Your task to perform on an android device: When is my next appointment? Image 0: 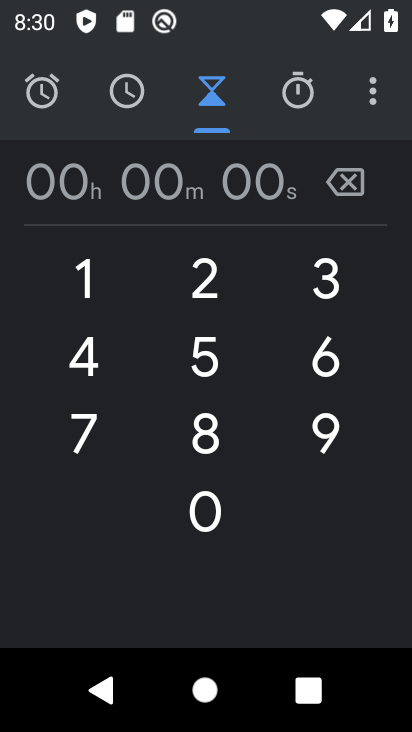
Step 0: press home button
Your task to perform on an android device: When is my next appointment? Image 1: 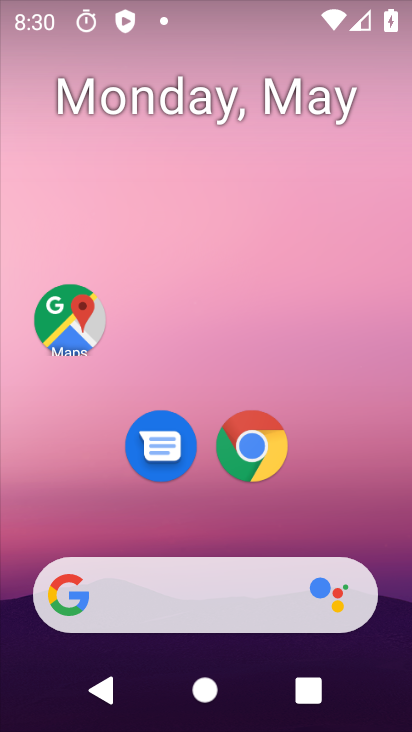
Step 1: drag from (370, 551) to (356, 7)
Your task to perform on an android device: When is my next appointment? Image 2: 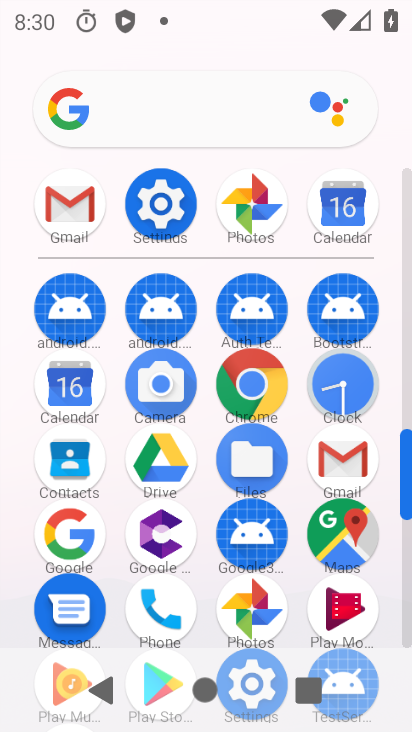
Step 2: click (347, 206)
Your task to perform on an android device: When is my next appointment? Image 3: 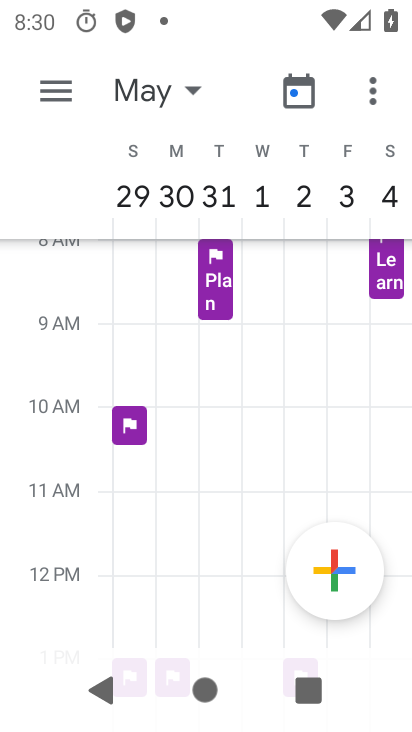
Step 3: click (67, 93)
Your task to perform on an android device: When is my next appointment? Image 4: 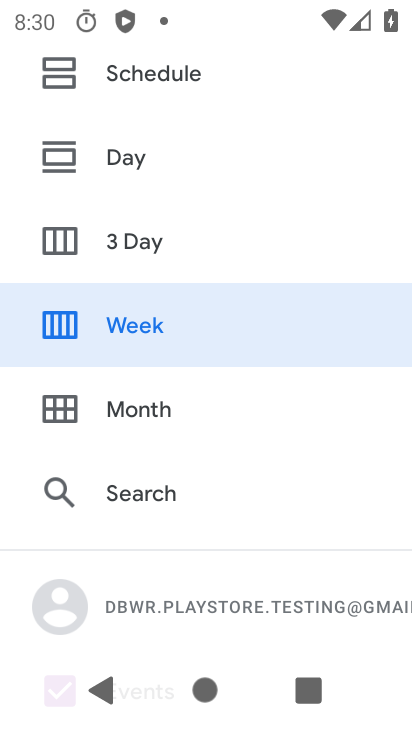
Step 4: click (165, 74)
Your task to perform on an android device: When is my next appointment? Image 5: 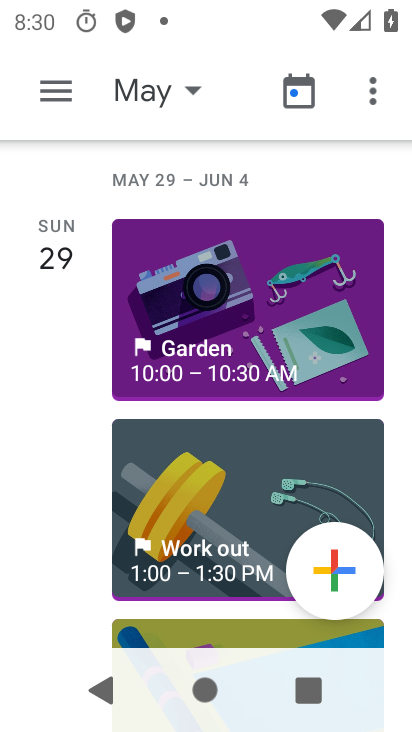
Step 5: drag from (235, 228) to (206, 708)
Your task to perform on an android device: When is my next appointment? Image 6: 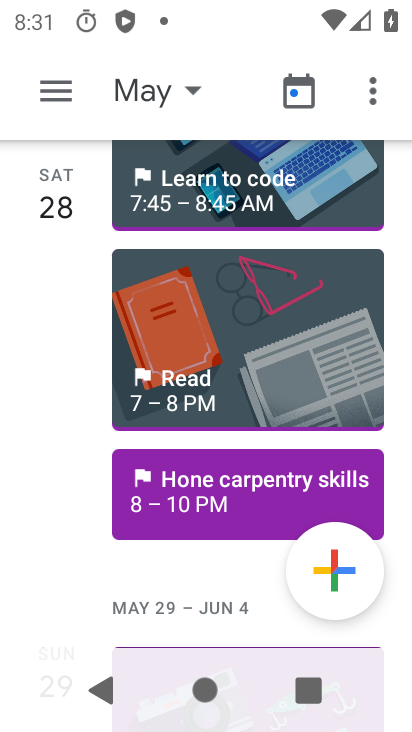
Step 6: click (294, 97)
Your task to perform on an android device: When is my next appointment? Image 7: 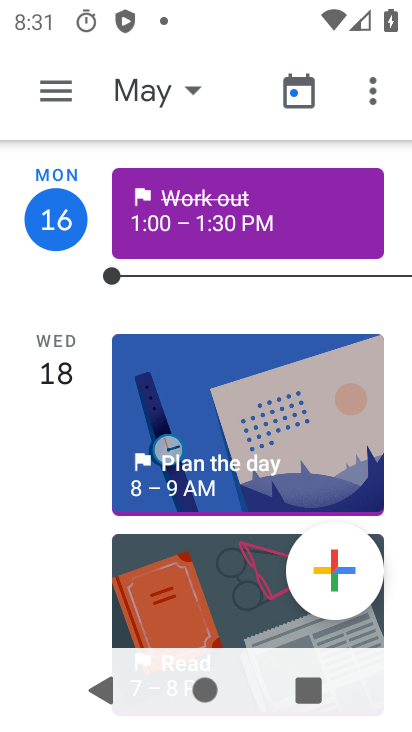
Step 7: drag from (212, 589) to (205, 240)
Your task to perform on an android device: When is my next appointment? Image 8: 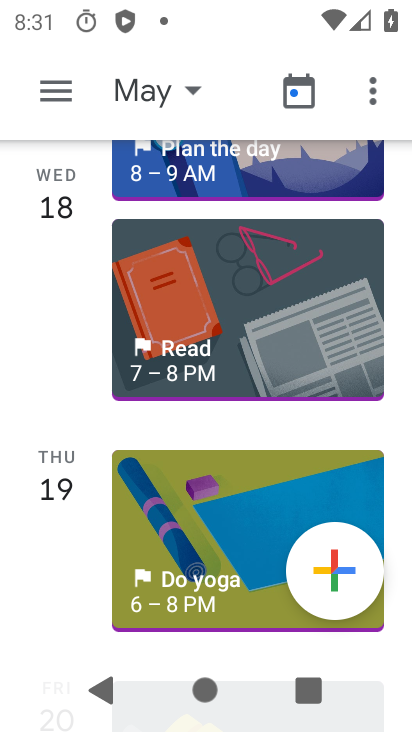
Step 8: drag from (212, 421) to (198, 122)
Your task to perform on an android device: When is my next appointment? Image 9: 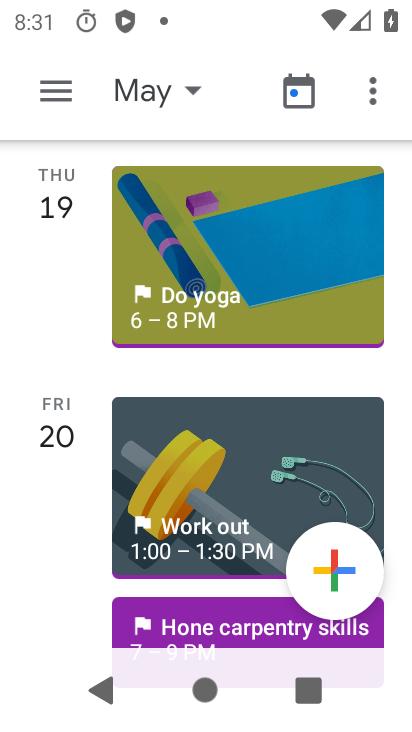
Step 9: drag from (187, 477) to (185, 97)
Your task to perform on an android device: When is my next appointment? Image 10: 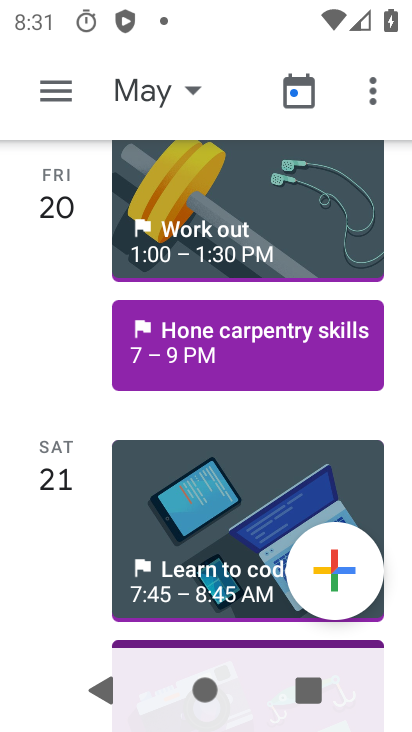
Step 10: click (211, 342)
Your task to perform on an android device: When is my next appointment? Image 11: 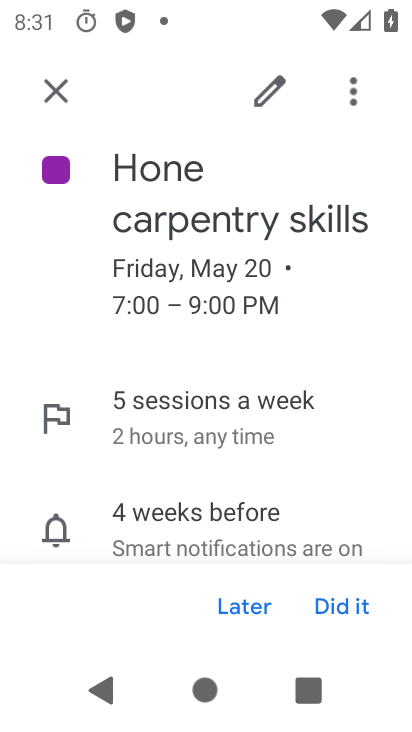
Step 11: task complete